Your task to perform on an android device: Open Google Maps Image 0: 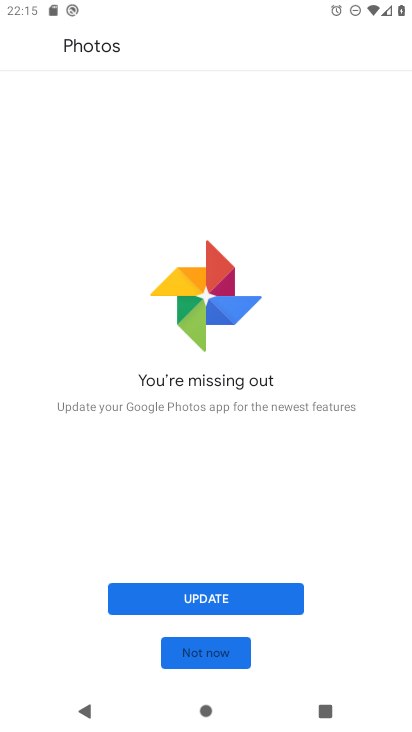
Step 0: press home button
Your task to perform on an android device: Open Google Maps Image 1: 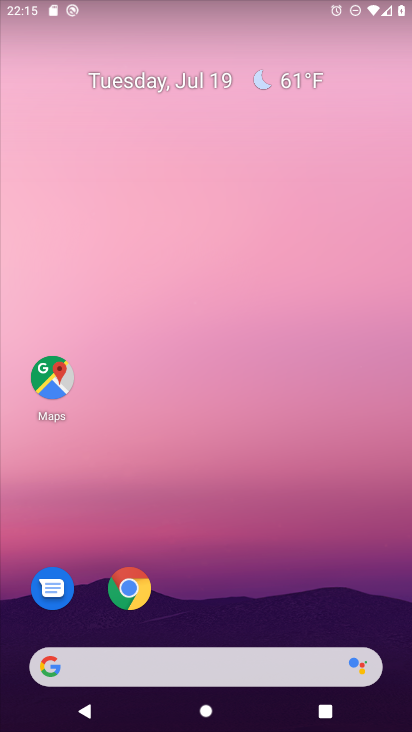
Step 1: click (51, 370)
Your task to perform on an android device: Open Google Maps Image 2: 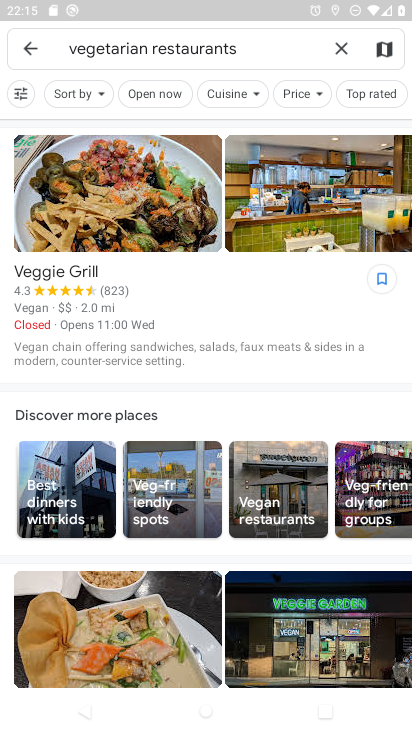
Step 2: click (31, 43)
Your task to perform on an android device: Open Google Maps Image 3: 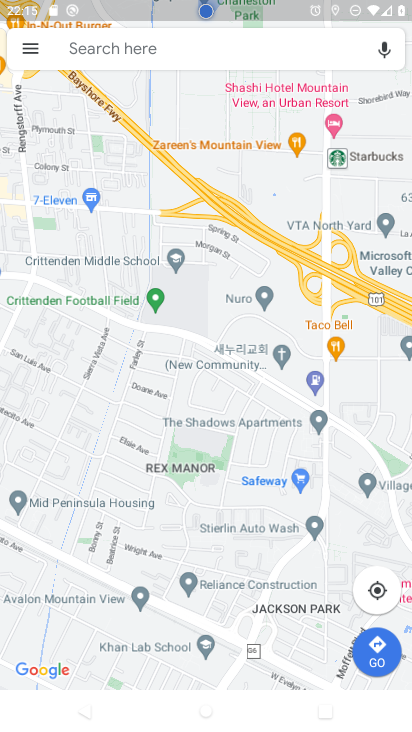
Step 3: task complete